Your task to perform on an android device: Add logitech g pro to the cart on bestbuy.com Image 0: 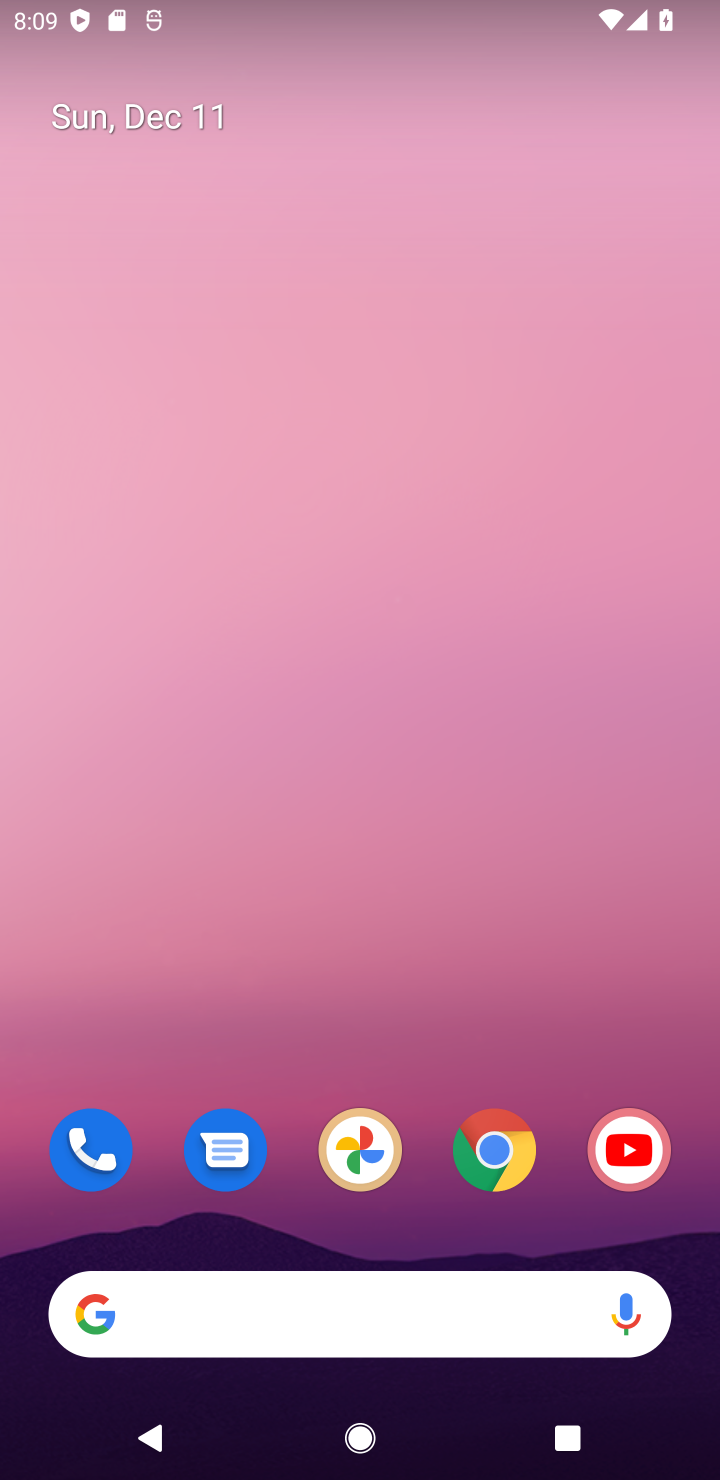
Step 0: click (499, 1152)
Your task to perform on an android device: Add logitech g pro to the cart on bestbuy.com Image 1: 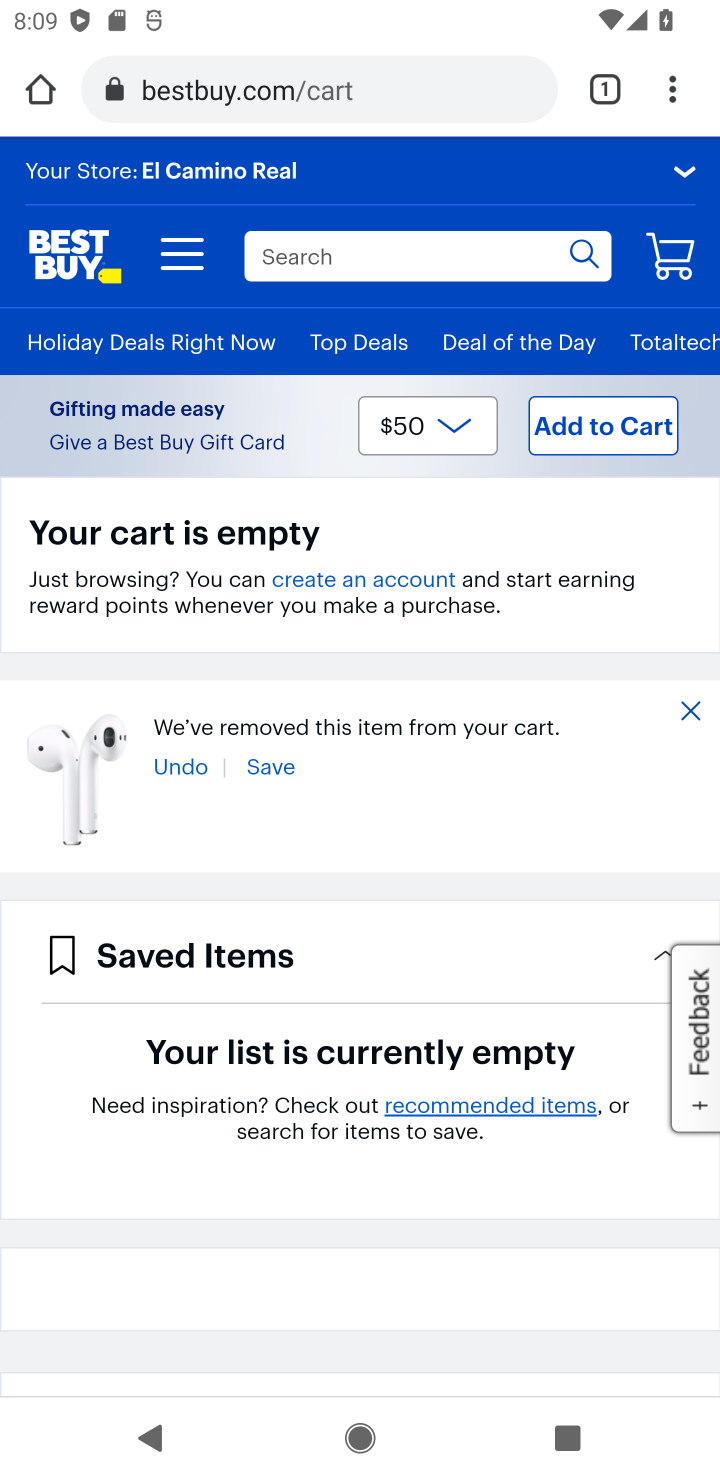
Step 1: click (397, 89)
Your task to perform on an android device: Add logitech g pro to the cart on bestbuy.com Image 2: 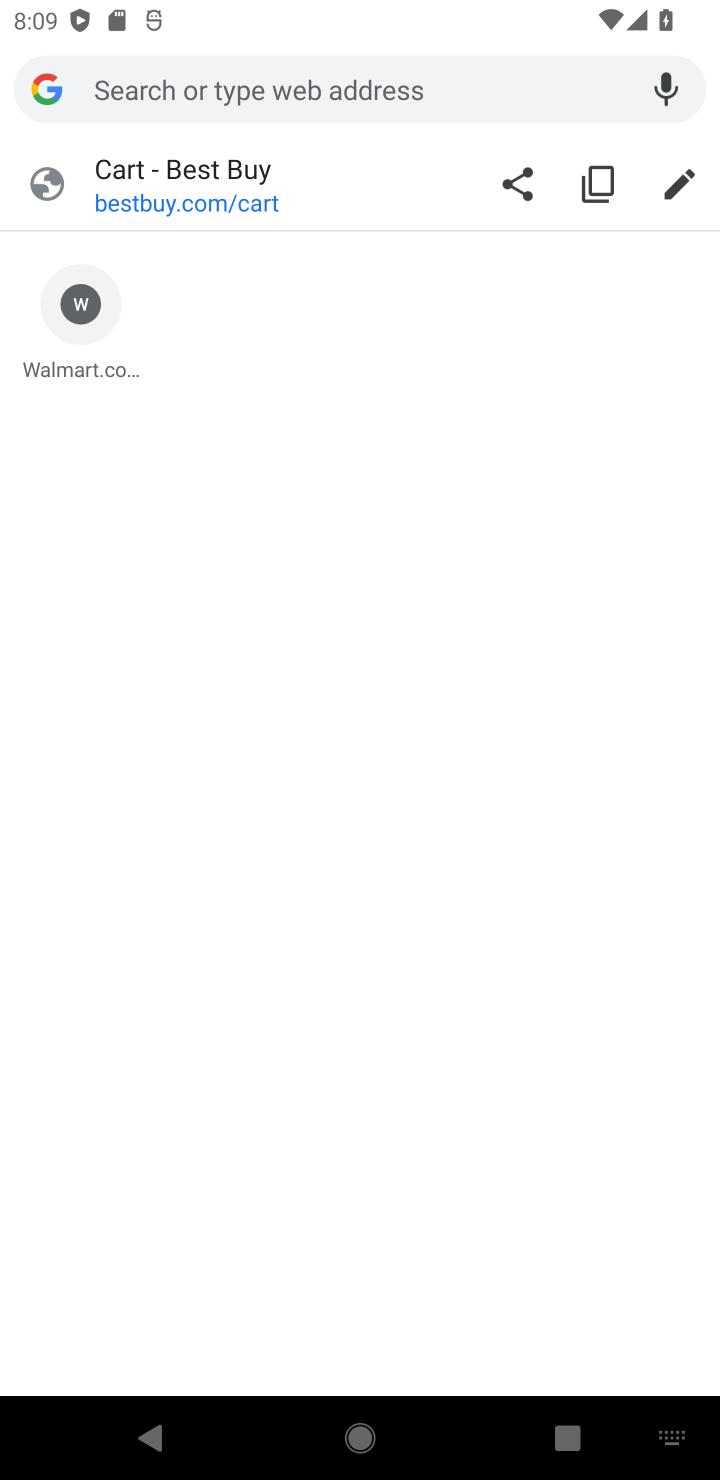
Step 2: type "bestbuy.com"
Your task to perform on an android device: Add logitech g pro to the cart on bestbuy.com Image 3: 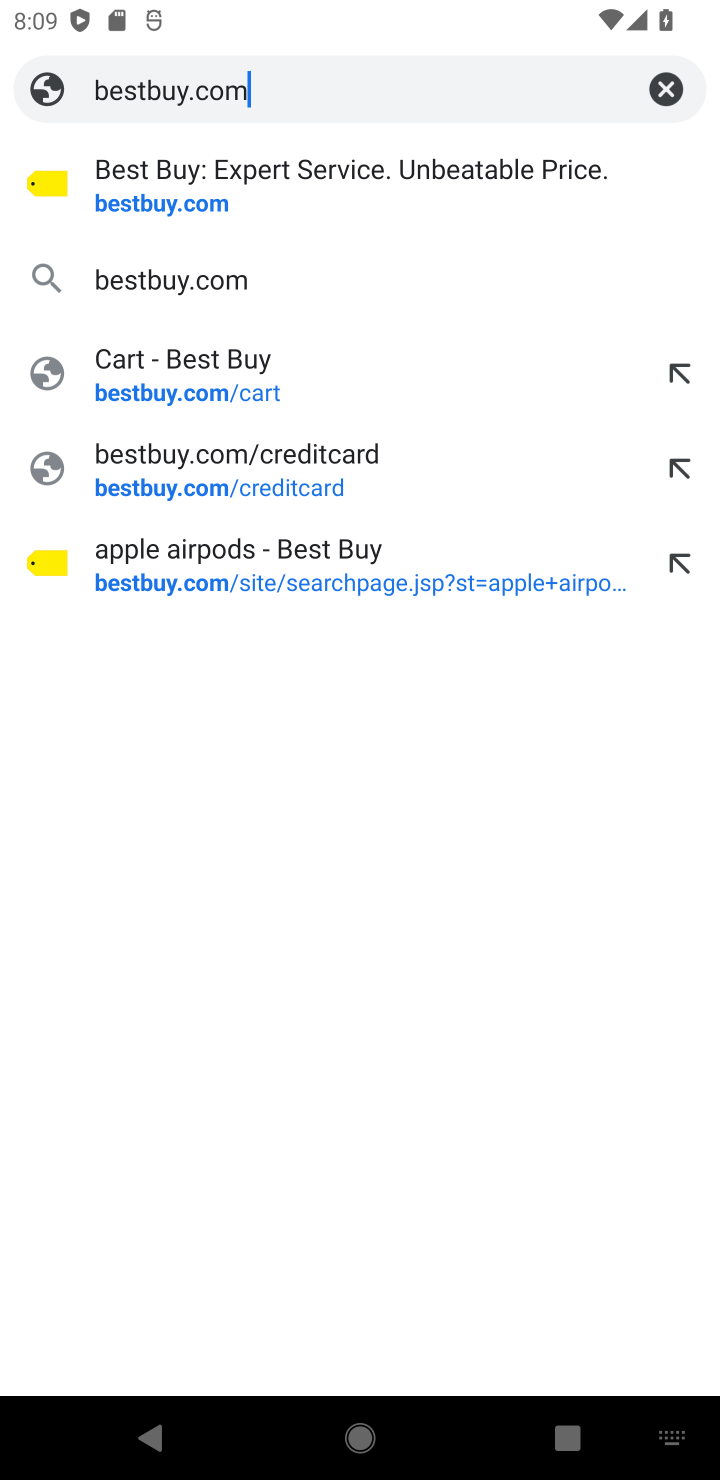
Step 3: click (194, 283)
Your task to perform on an android device: Add logitech g pro to the cart on bestbuy.com Image 4: 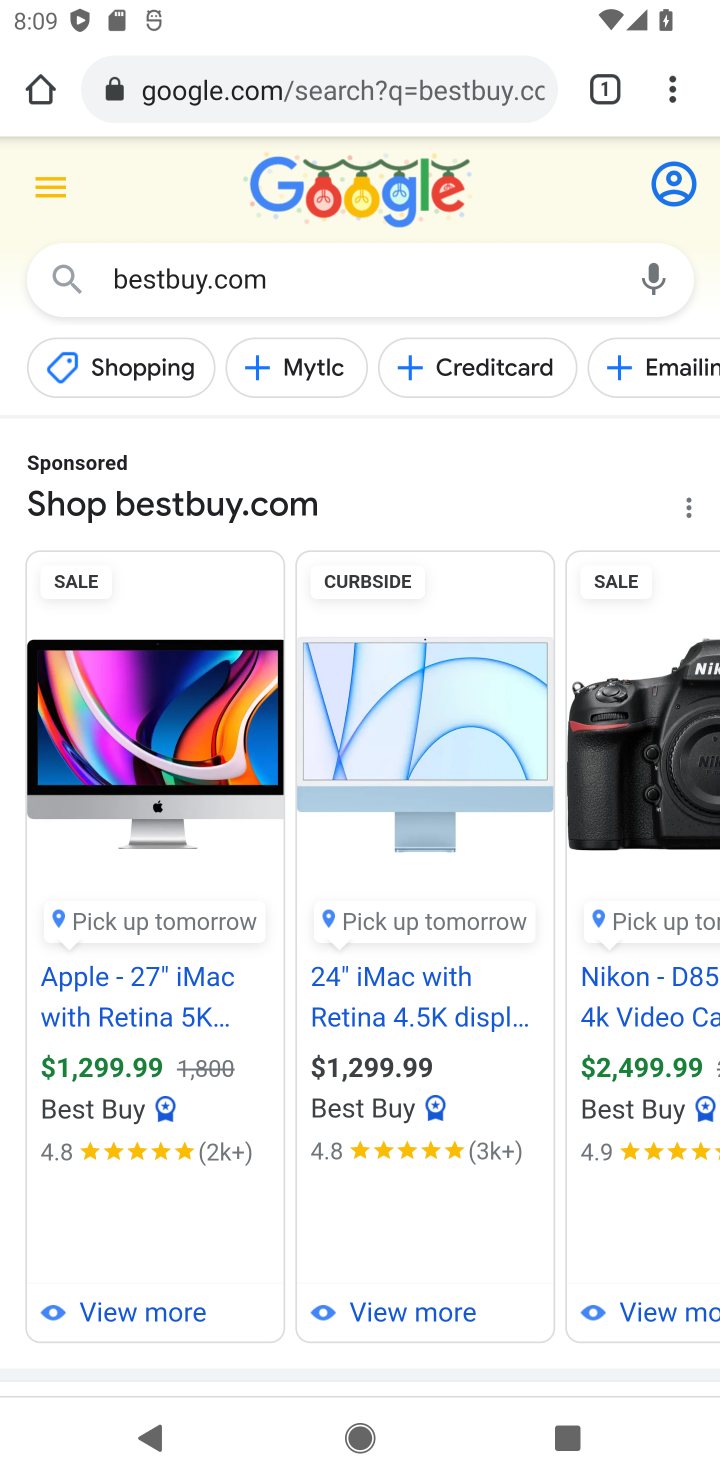
Step 4: drag from (373, 1256) to (528, 643)
Your task to perform on an android device: Add logitech g pro to the cart on bestbuy.com Image 5: 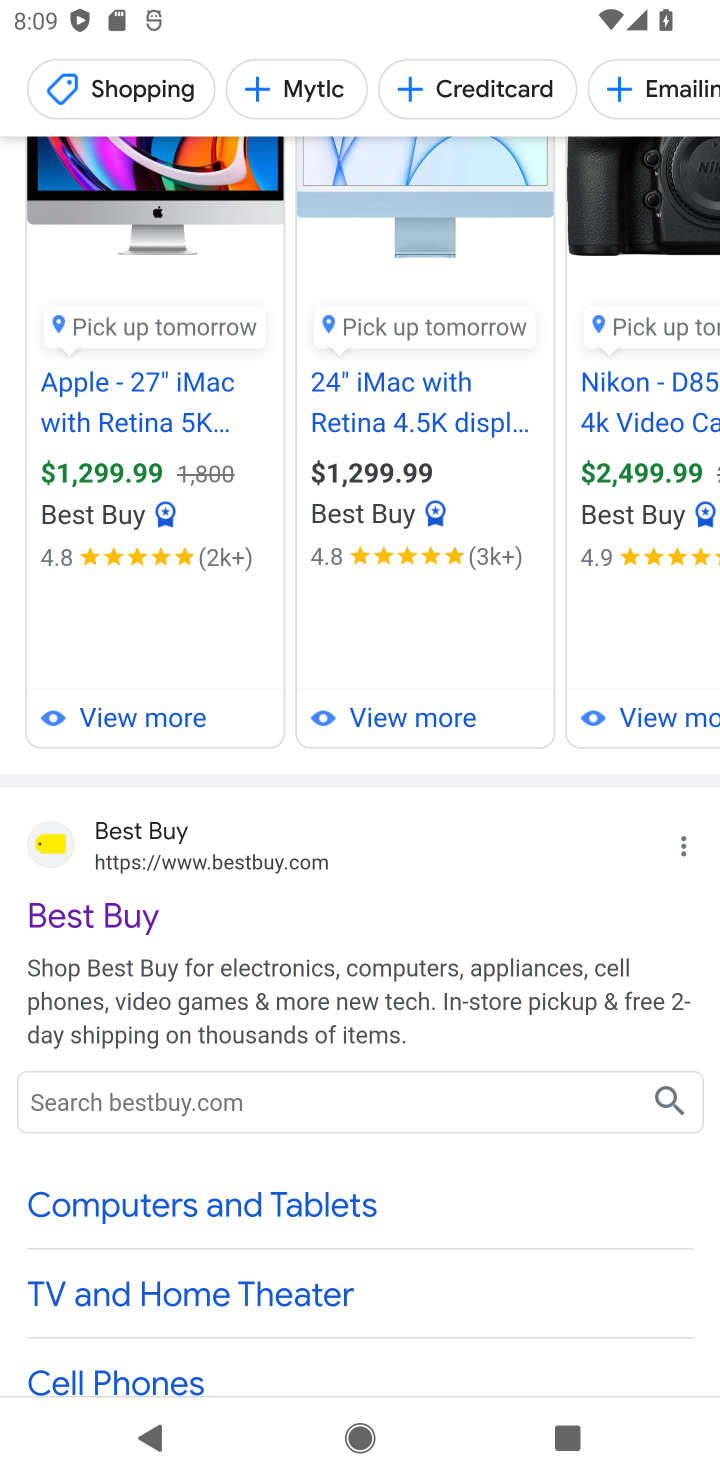
Step 5: click (118, 921)
Your task to perform on an android device: Add logitech g pro to the cart on bestbuy.com Image 6: 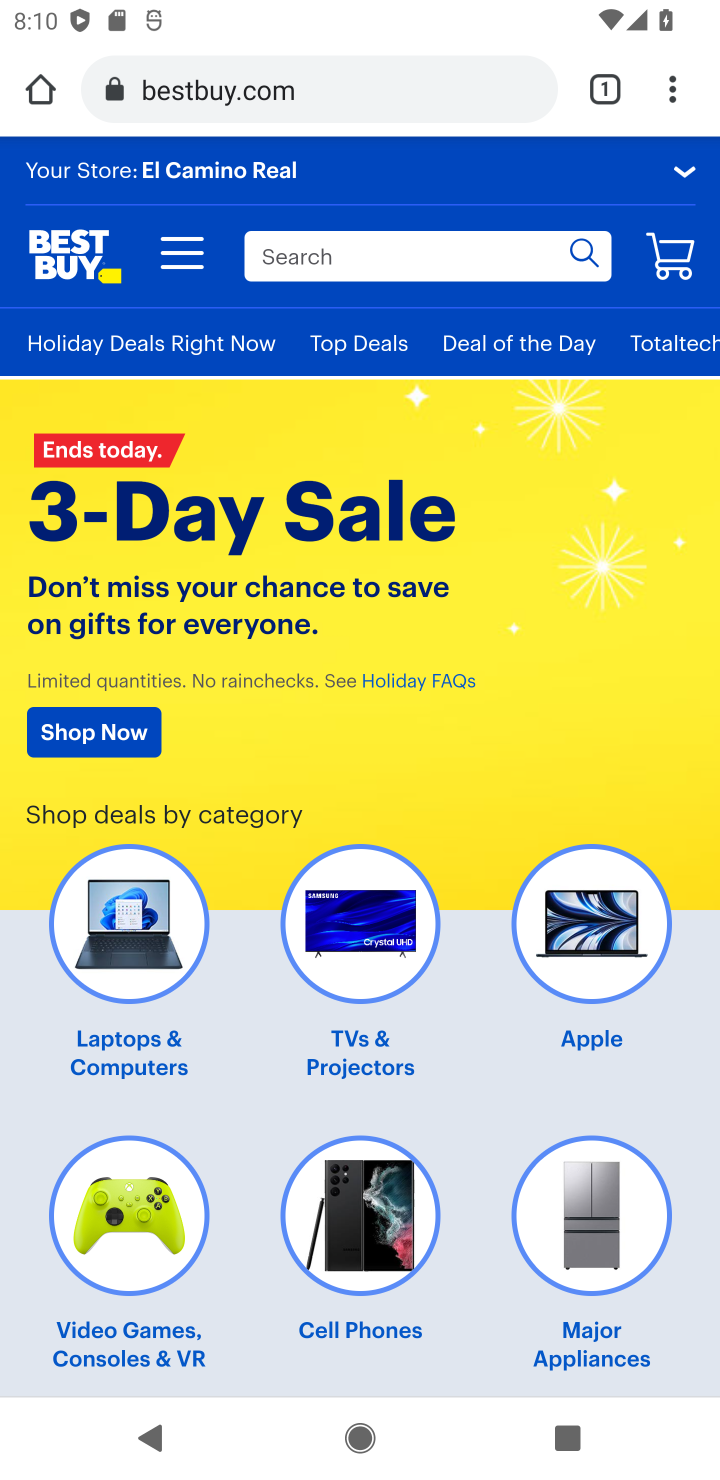
Step 6: click (439, 265)
Your task to perform on an android device: Add logitech g pro to the cart on bestbuy.com Image 7: 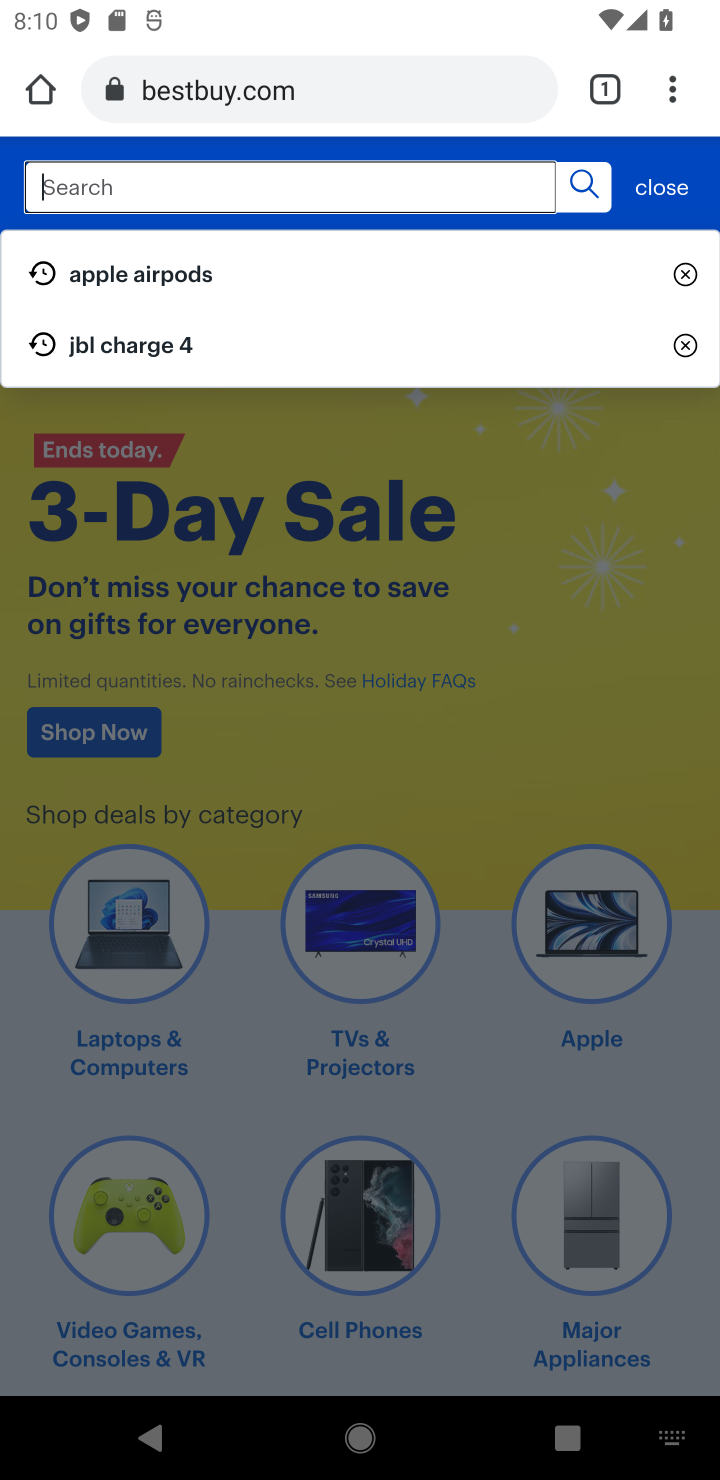
Step 7: type "logitech g pro"
Your task to perform on an android device: Add logitech g pro to the cart on bestbuy.com Image 8: 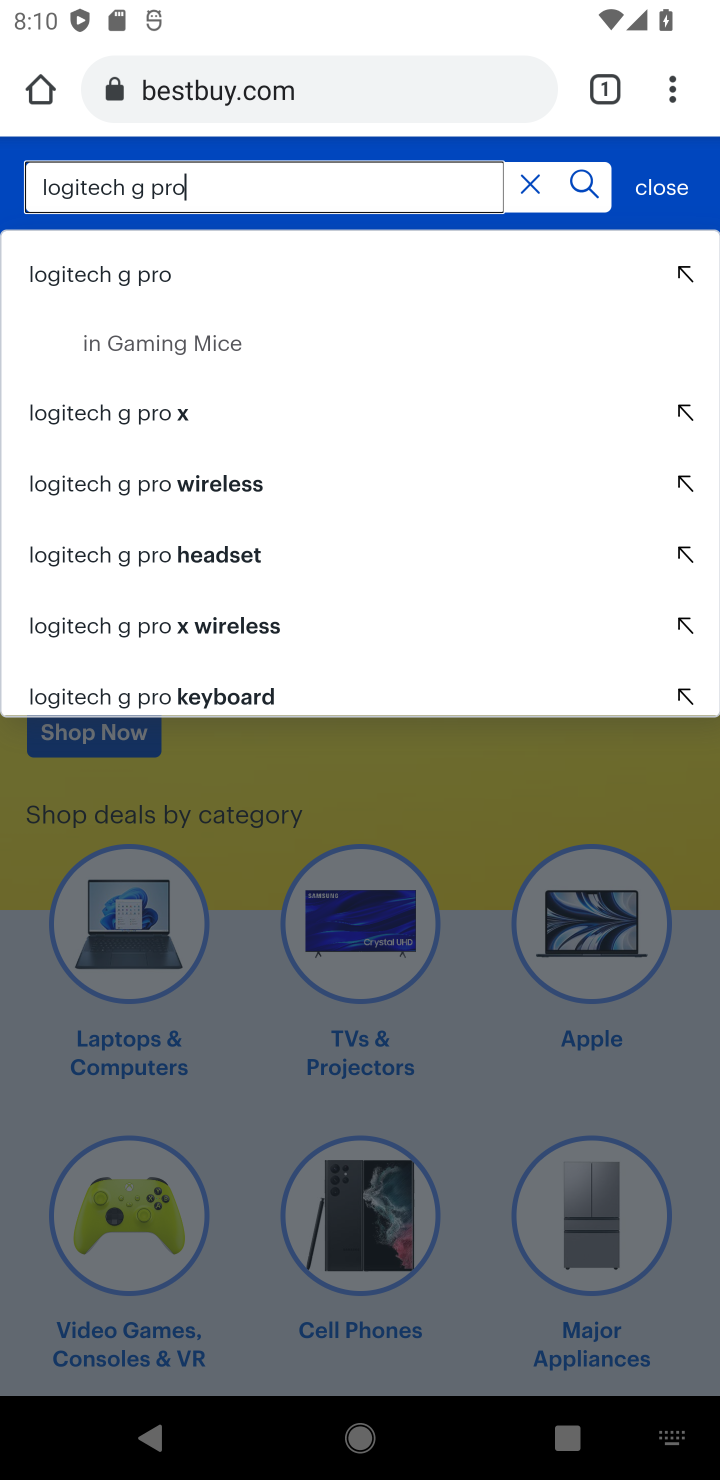
Step 8: click (97, 280)
Your task to perform on an android device: Add logitech g pro to the cart on bestbuy.com Image 9: 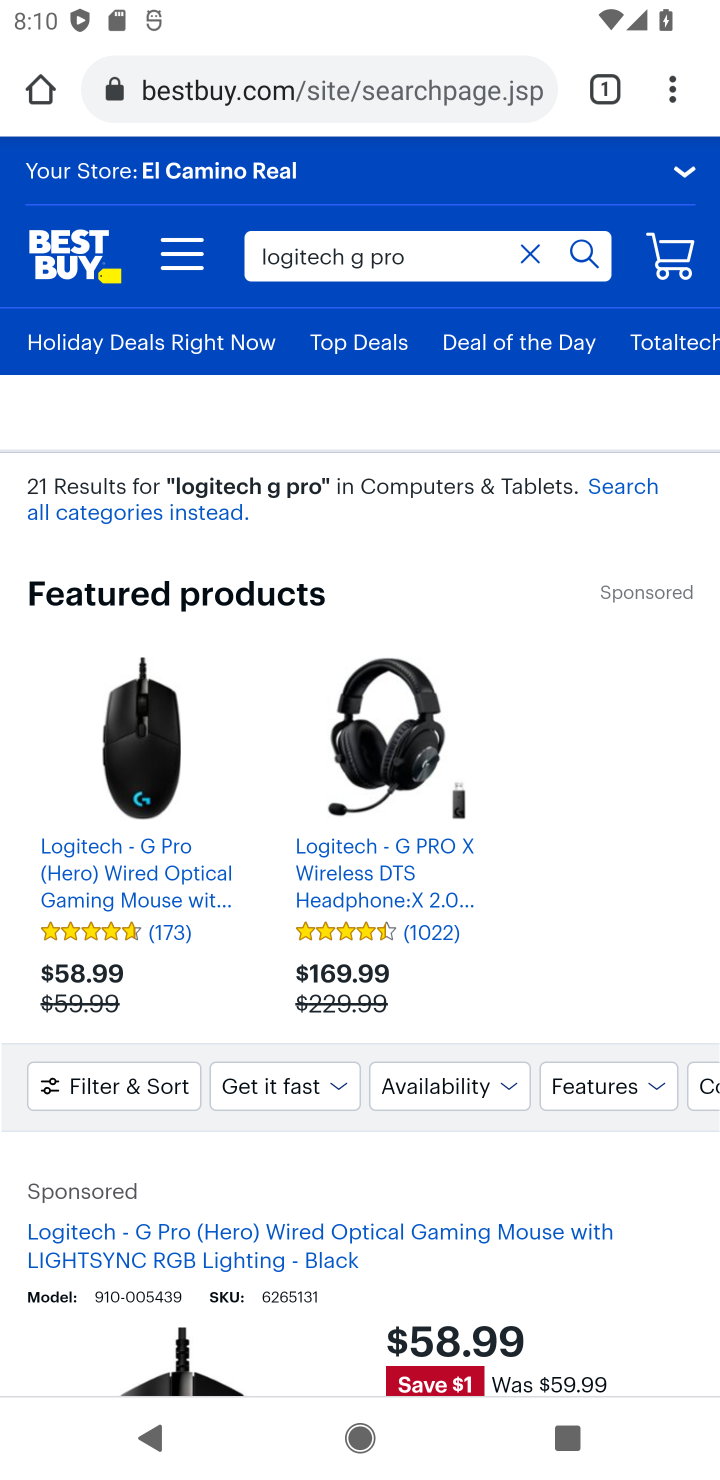
Step 9: drag from (256, 1178) to (335, 704)
Your task to perform on an android device: Add logitech g pro to the cart on bestbuy.com Image 10: 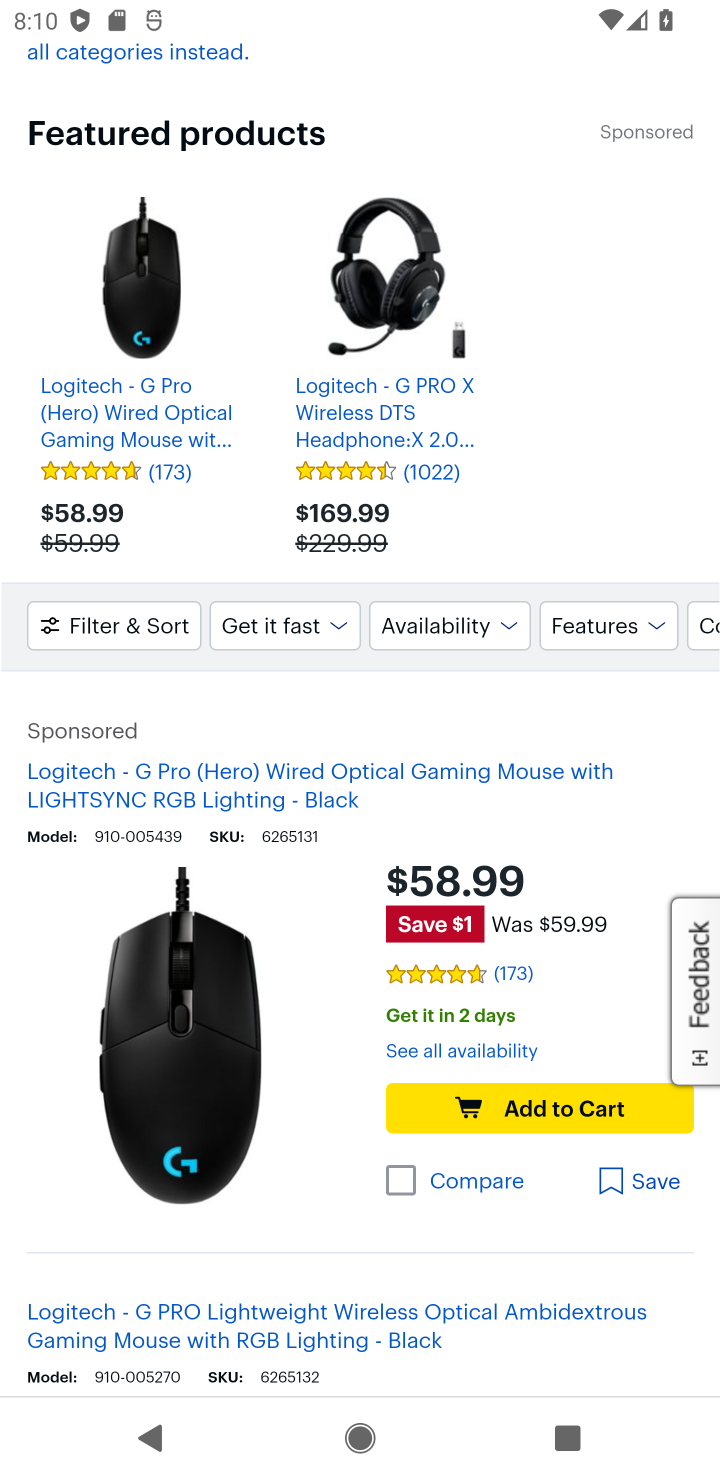
Step 10: click (569, 1114)
Your task to perform on an android device: Add logitech g pro to the cart on bestbuy.com Image 11: 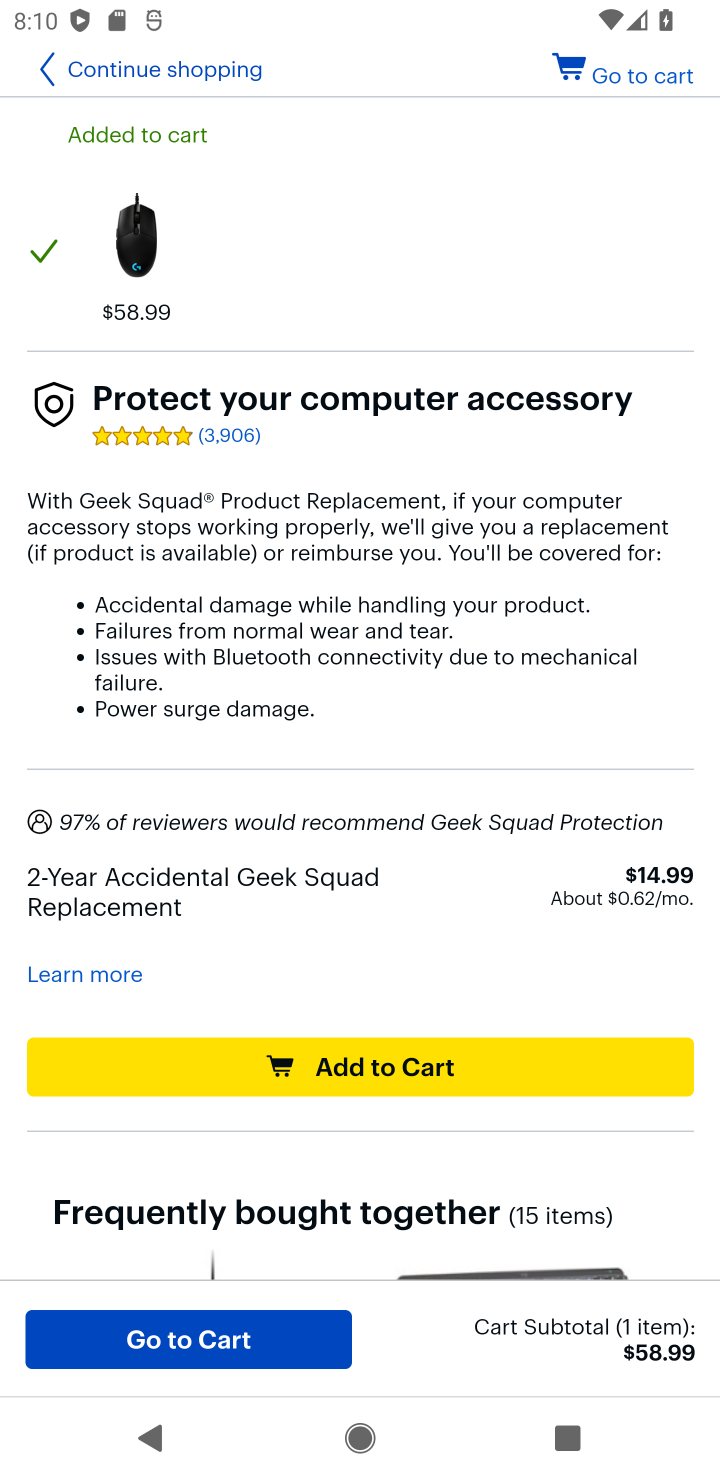
Step 11: click (191, 1338)
Your task to perform on an android device: Add logitech g pro to the cart on bestbuy.com Image 12: 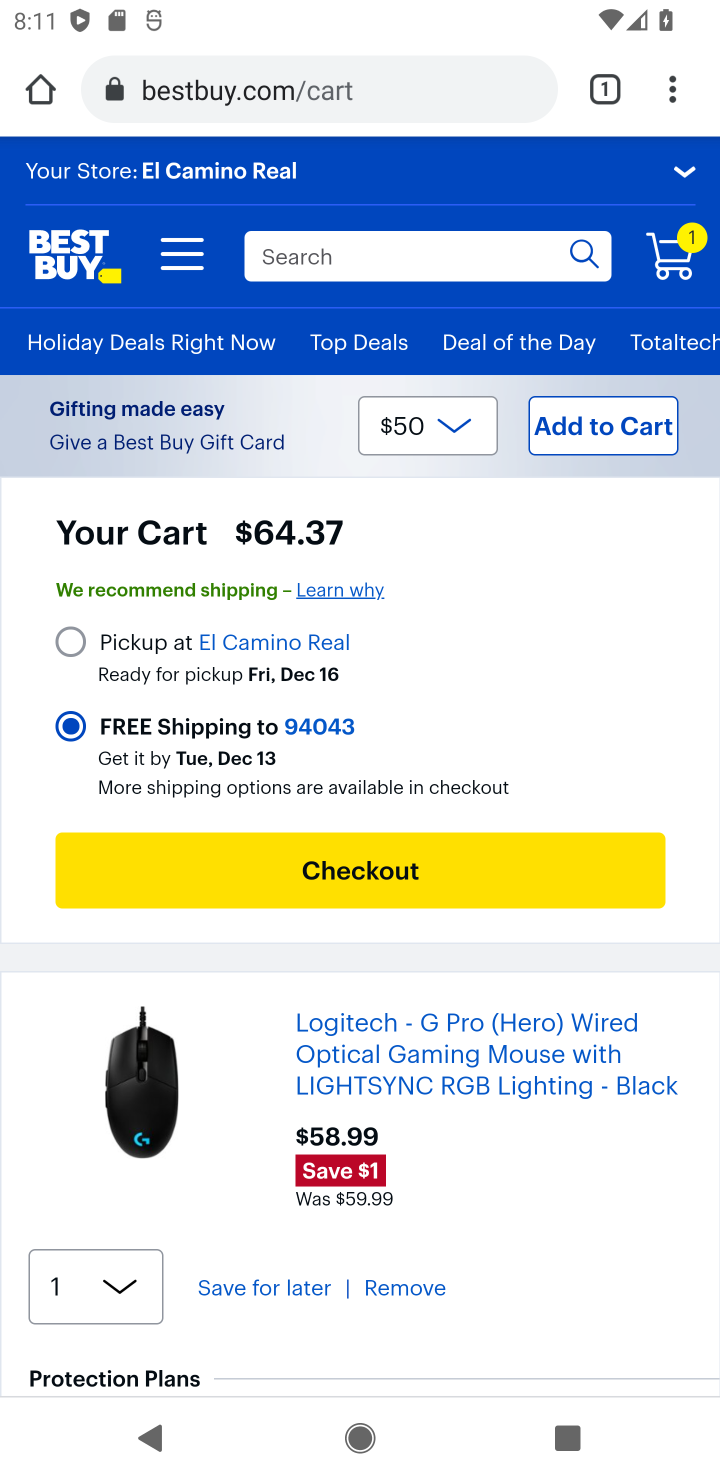
Step 12: task complete